Your task to perform on an android device: Open sound settings Image 0: 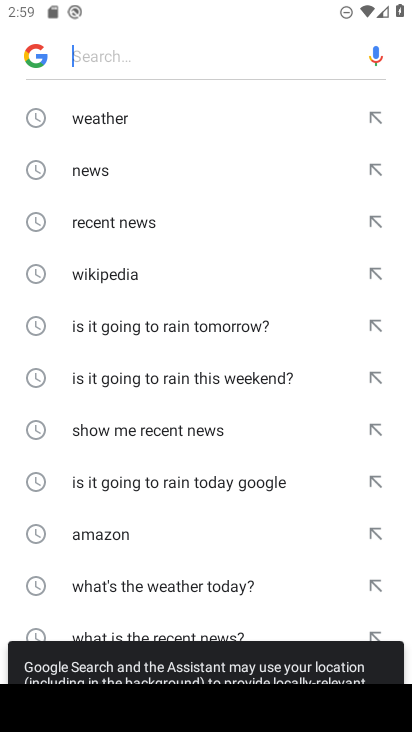
Step 0: press home button
Your task to perform on an android device: Open sound settings Image 1: 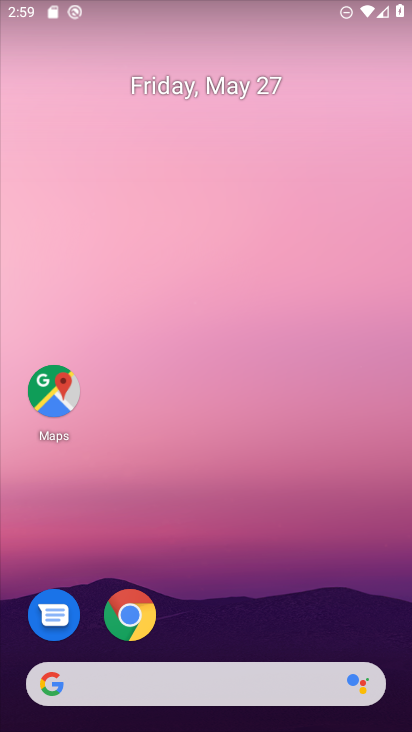
Step 1: drag from (164, 14) to (127, 24)
Your task to perform on an android device: Open sound settings Image 2: 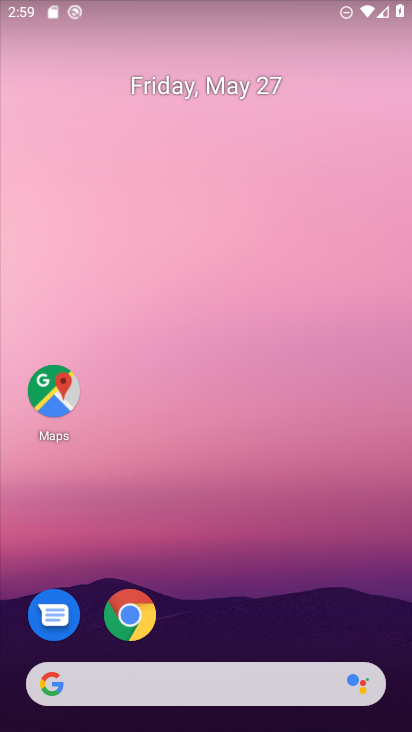
Step 2: drag from (289, 561) to (212, 52)
Your task to perform on an android device: Open sound settings Image 3: 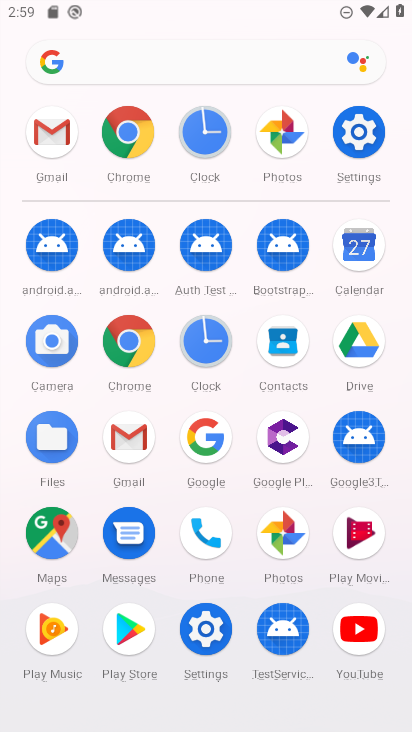
Step 3: click (355, 139)
Your task to perform on an android device: Open sound settings Image 4: 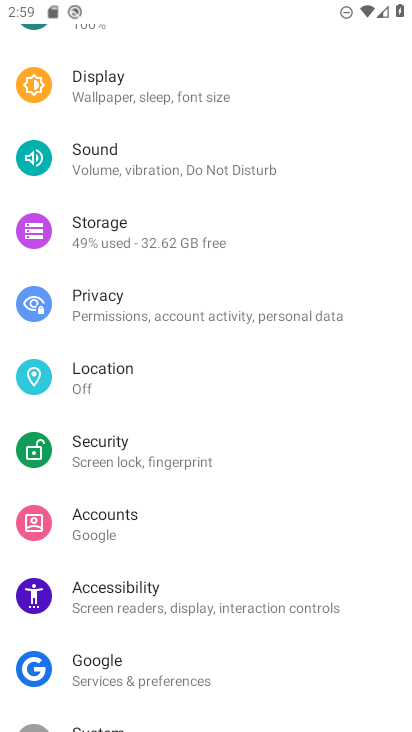
Step 4: click (103, 166)
Your task to perform on an android device: Open sound settings Image 5: 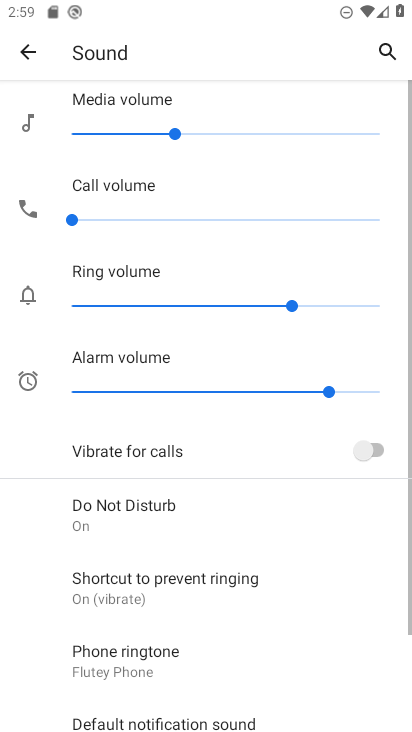
Step 5: task complete